Your task to perform on an android device: Is it going to rain tomorrow? Image 0: 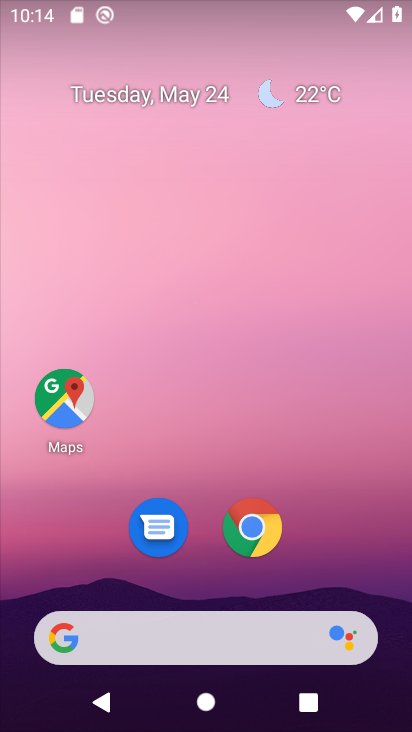
Step 0: press home button
Your task to perform on an android device: Is it going to rain tomorrow? Image 1: 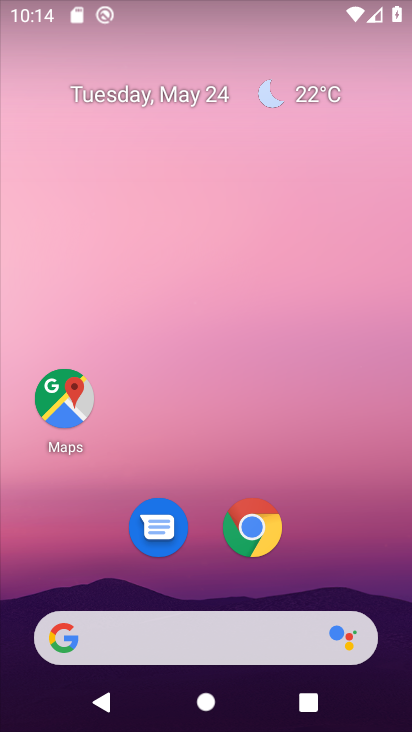
Step 1: drag from (169, 627) to (249, 215)
Your task to perform on an android device: Is it going to rain tomorrow? Image 2: 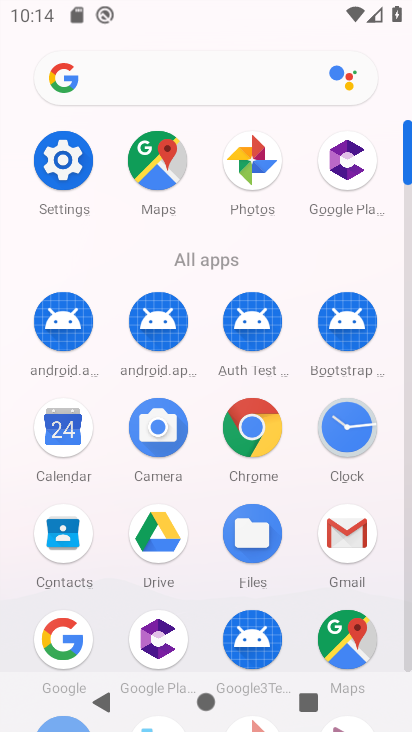
Step 2: click (77, 641)
Your task to perform on an android device: Is it going to rain tomorrow? Image 3: 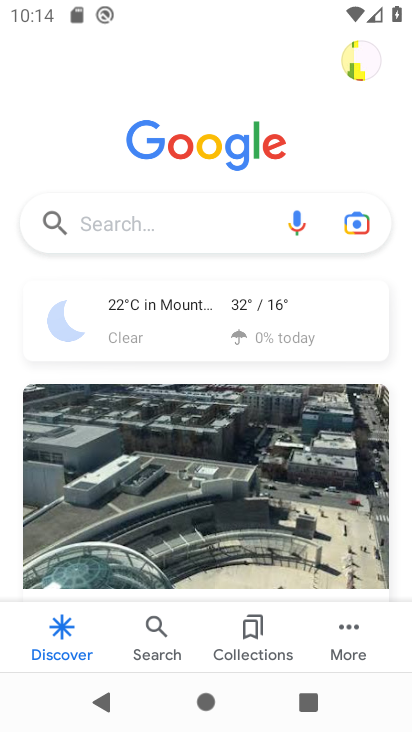
Step 3: click (250, 307)
Your task to perform on an android device: Is it going to rain tomorrow? Image 4: 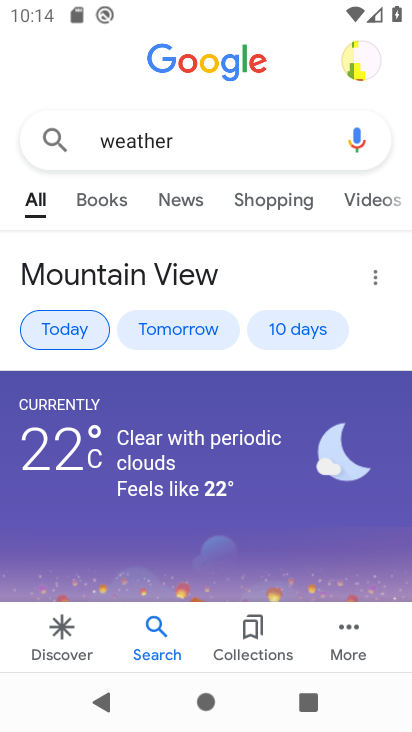
Step 4: drag from (172, 576) to (348, 121)
Your task to perform on an android device: Is it going to rain tomorrow? Image 5: 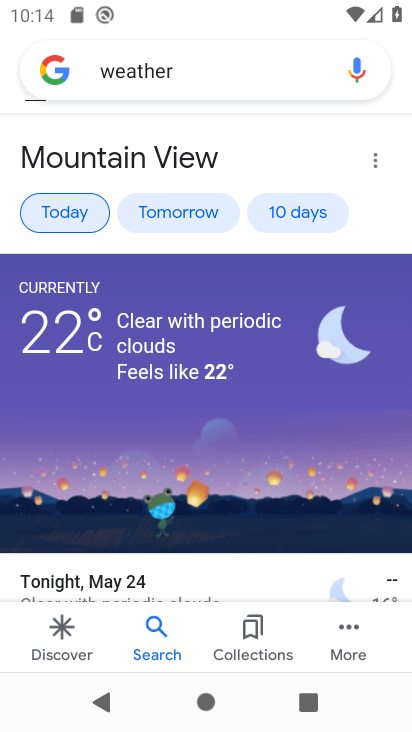
Step 5: drag from (233, 511) to (326, 199)
Your task to perform on an android device: Is it going to rain tomorrow? Image 6: 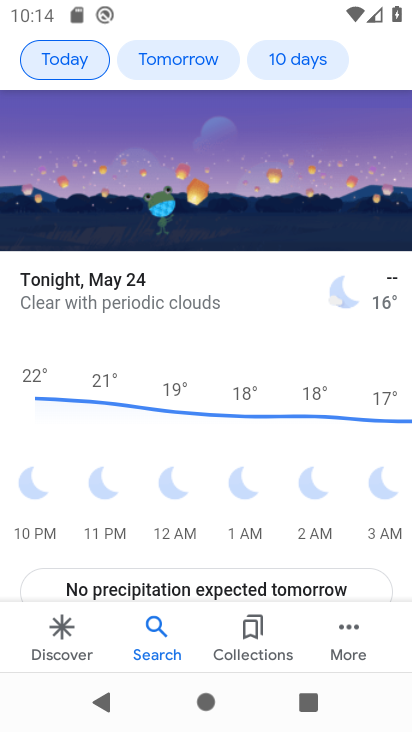
Step 6: click (190, 51)
Your task to perform on an android device: Is it going to rain tomorrow? Image 7: 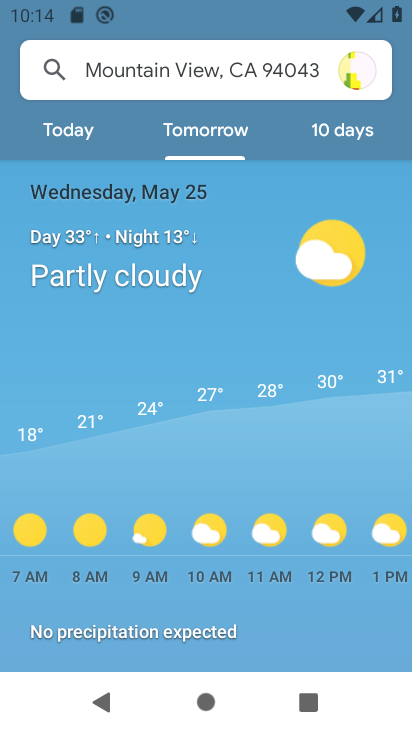
Step 7: task complete